Your task to perform on an android device: uninstall "McDonald's" Image 0: 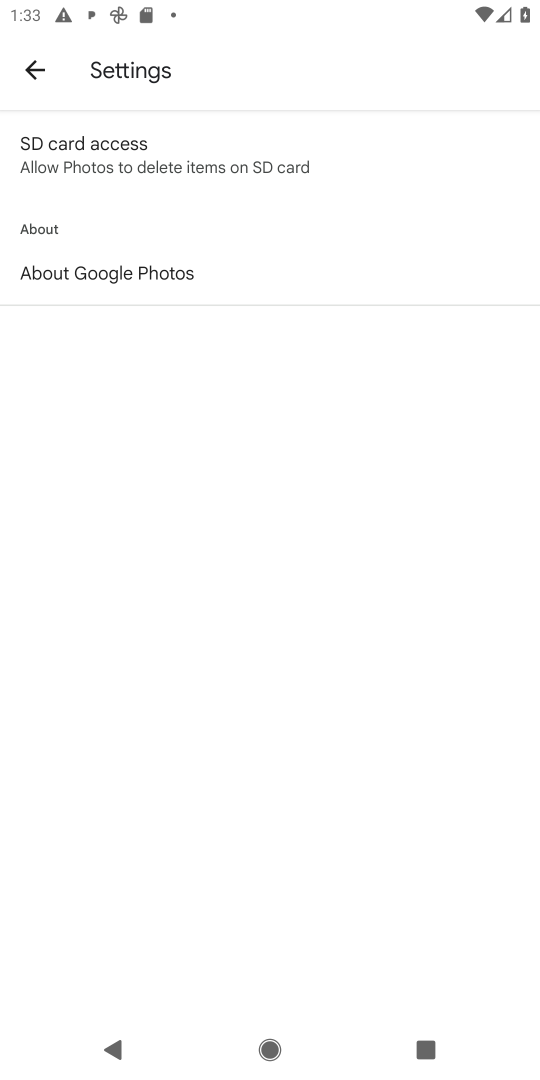
Step 0: press home button
Your task to perform on an android device: uninstall "McDonald's" Image 1: 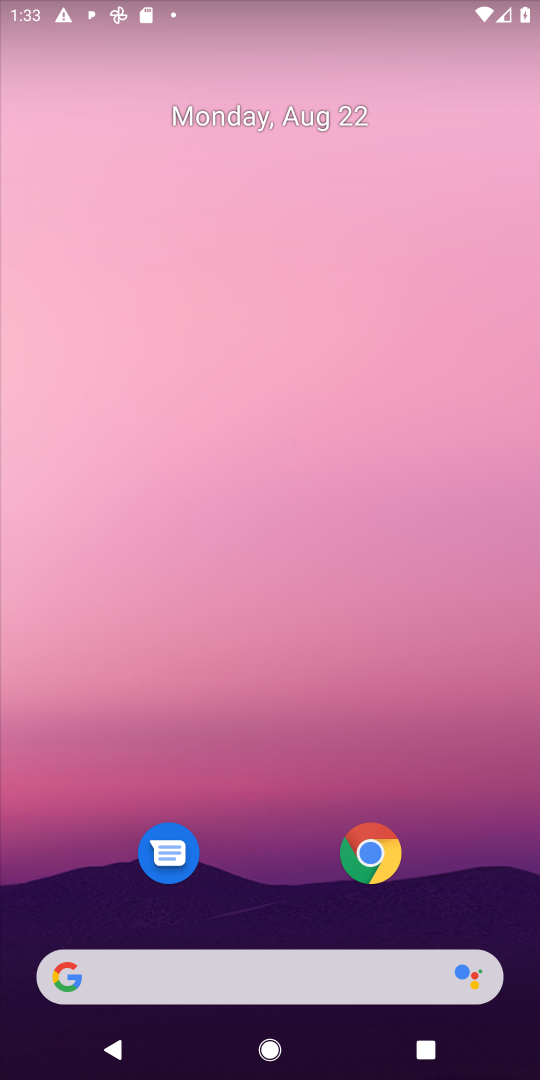
Step 1: drag from (259, 937) to (283, 230)
Your task to perform on an android device: uninstall "McDonald's" Image 2: 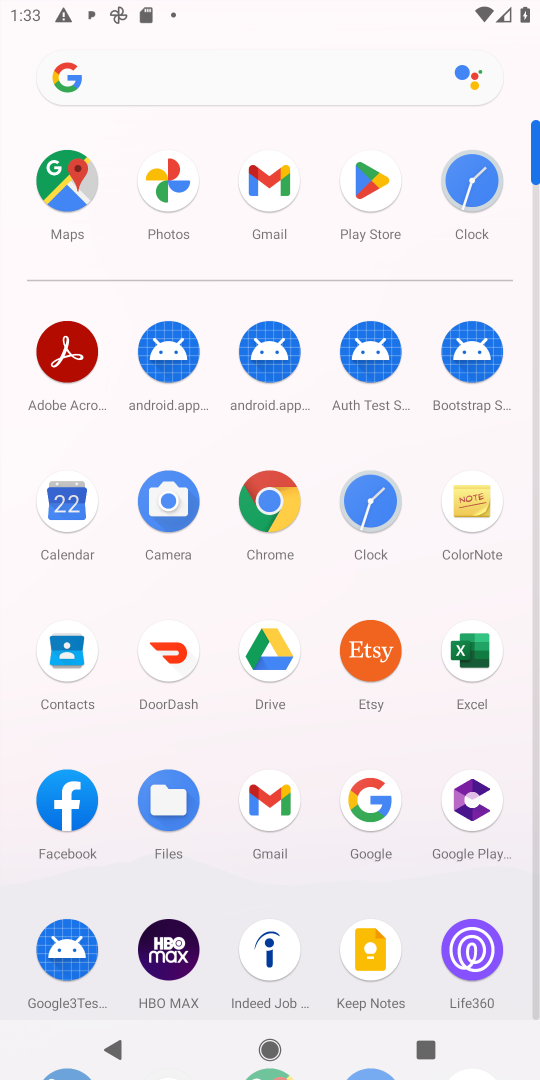
Step 2: click (374, 180)
Your task to perform on an android device: uninstall "McDonald's" Image 3: 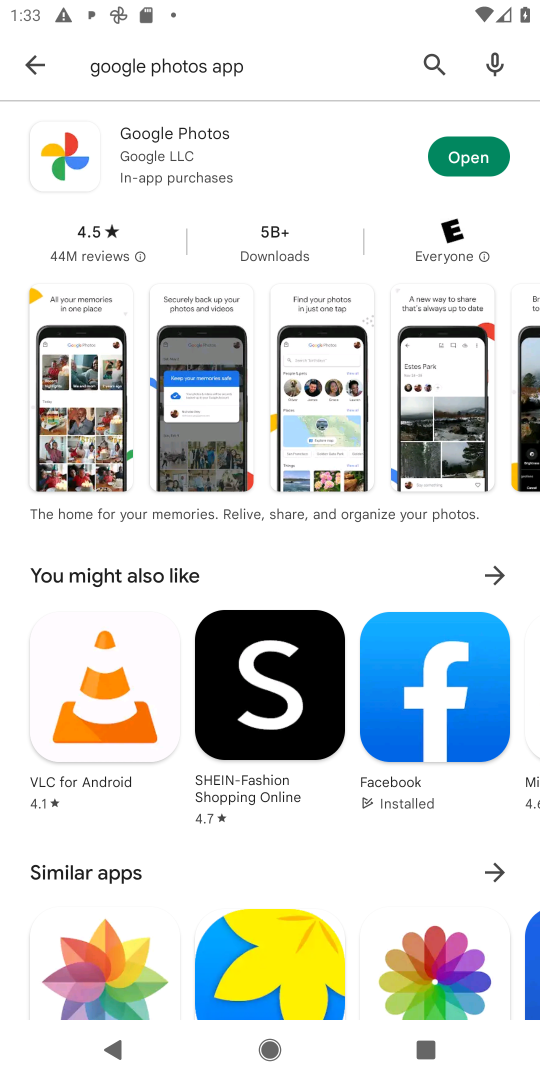
Step 3: click (27, 57)
Your task to perform on an android device: uninstall "McDonald's" Image 4: 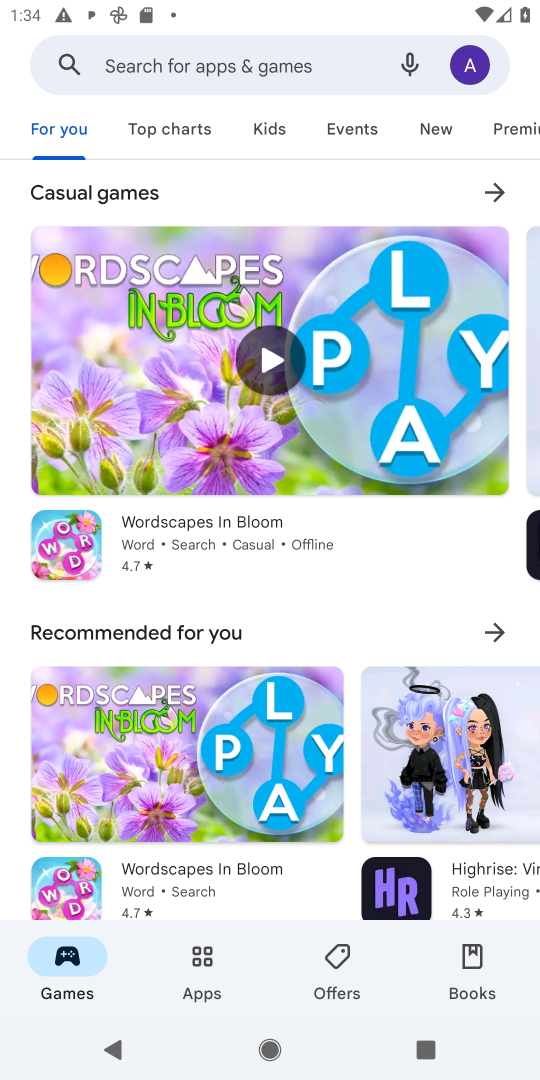
Step 4: click (166, 48)
Your task to perform on an android device: uninstall "McDonald's" Image 5: 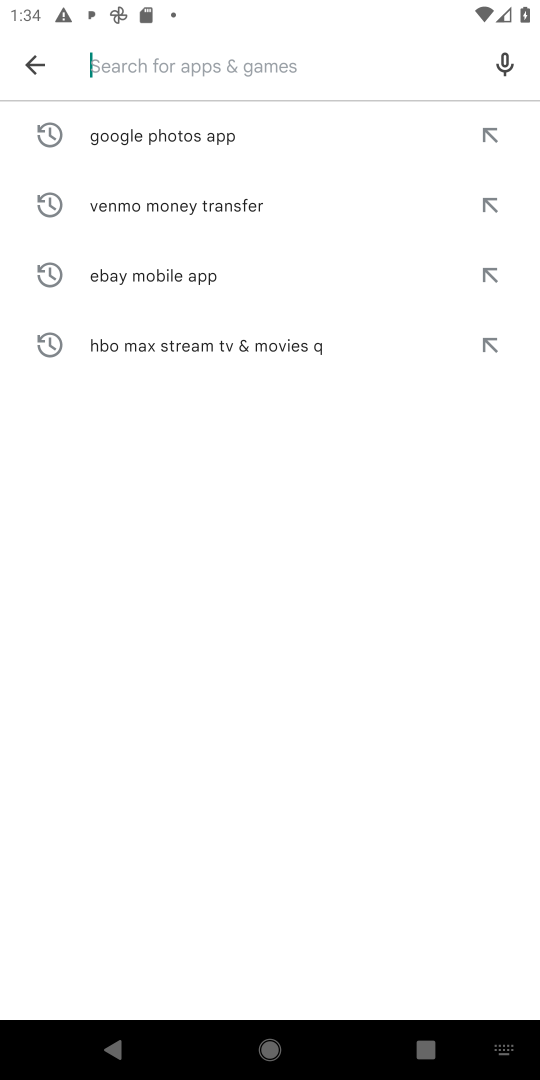
Step 5: type "McDonald's "
Your task to perform on an android device: uninstall "McDonald's" Image 6: 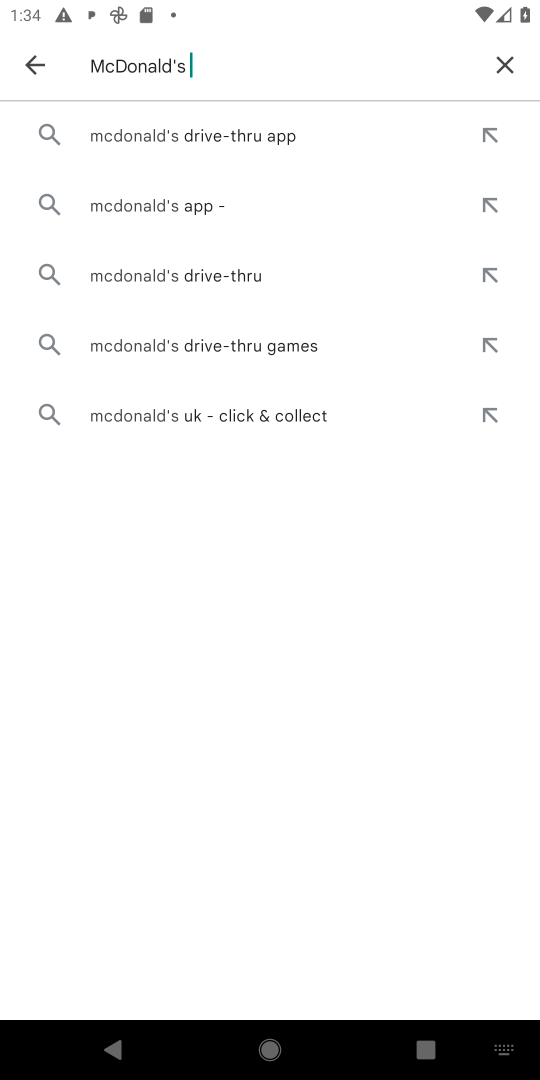
Step 6: click (227, 145)
Your task to perform on an android device: uninstall "McDonald's" Image 7: 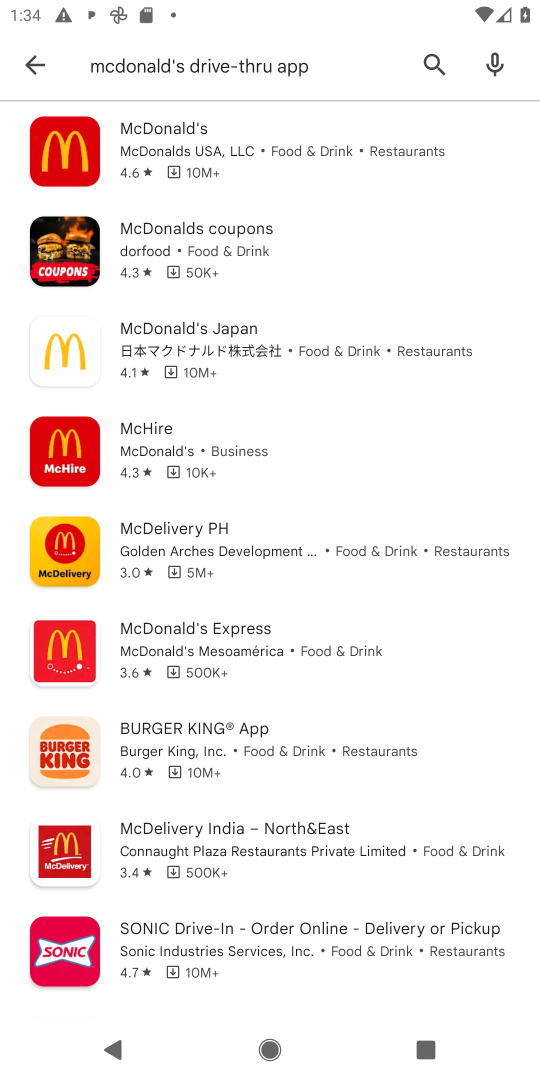
Step 7: click (227, 145)
Your task to perform on an android device: uninstall "McDonald's" Image 8: 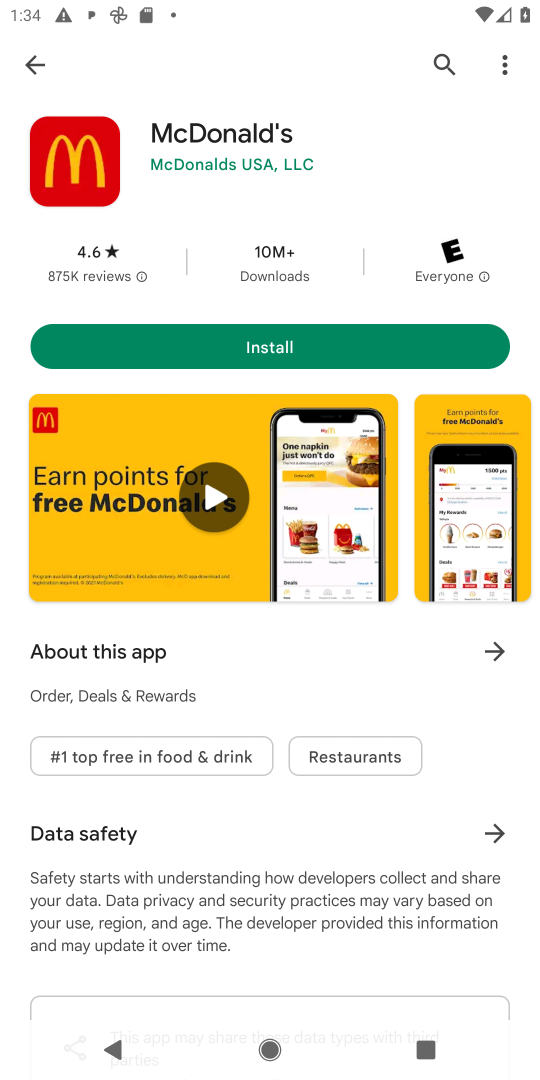
Step 8: task complete